Your task to perform on an android device: install app "Firefox Browser" Image 0: 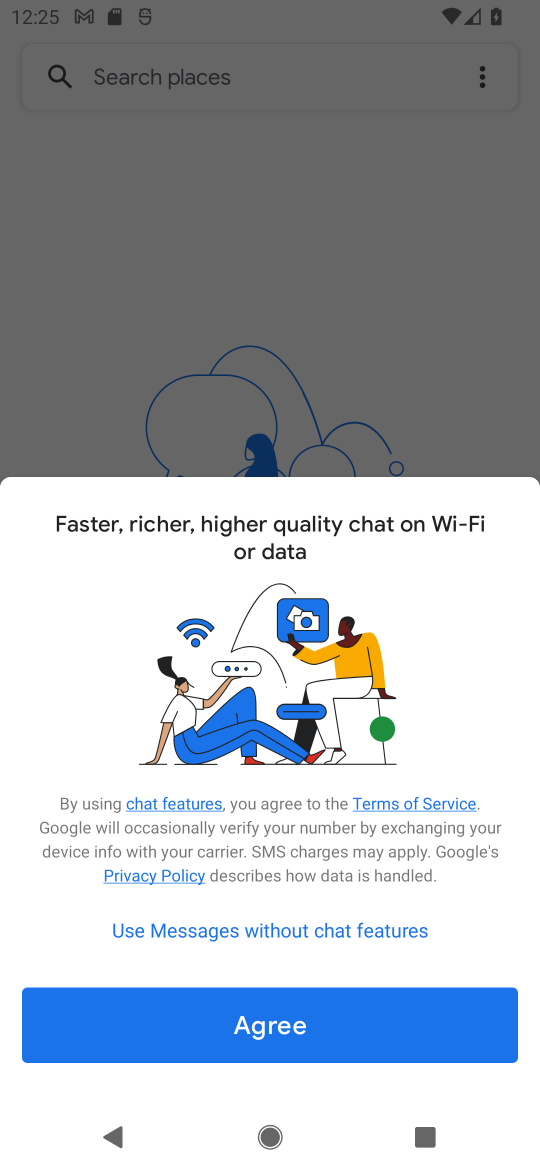
Step 0: press home button
Your task to perform on an android device: install app "Firefox Browser" Image 1: 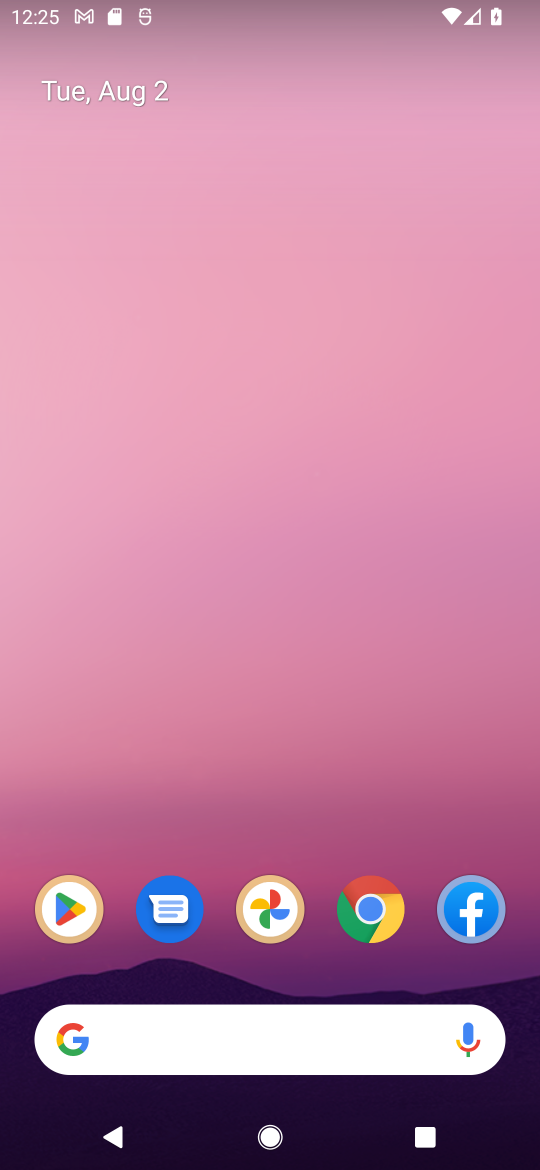
Step 1: click (69, 898)
Your task to perform on an android device: install app "Firefox Browser" Image 2: 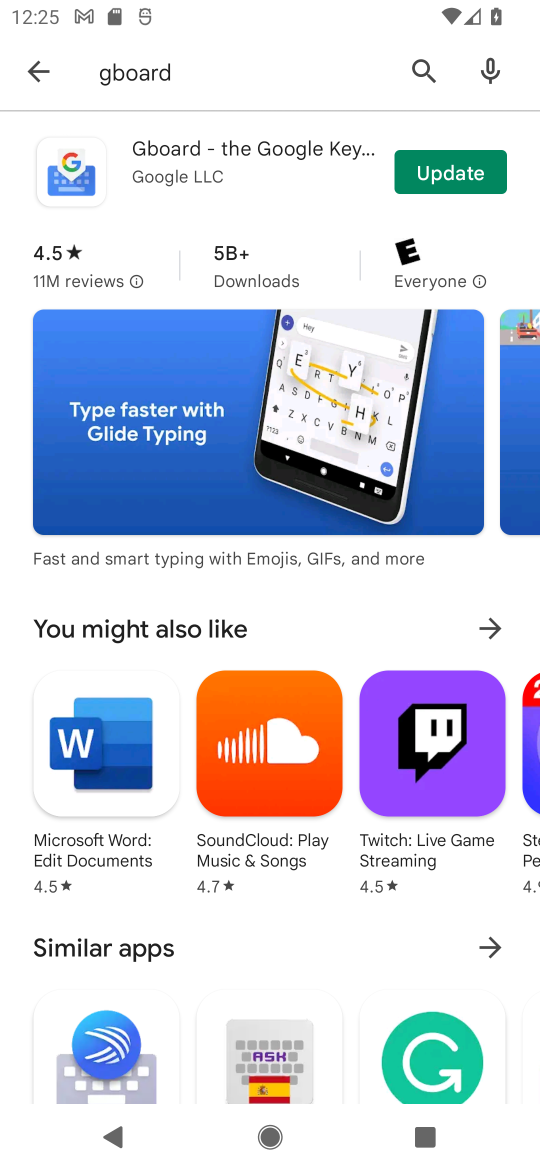
Step 2: click (421, 56)
Your task to perform on an android device: install app "Firefox Browser" Image 3: 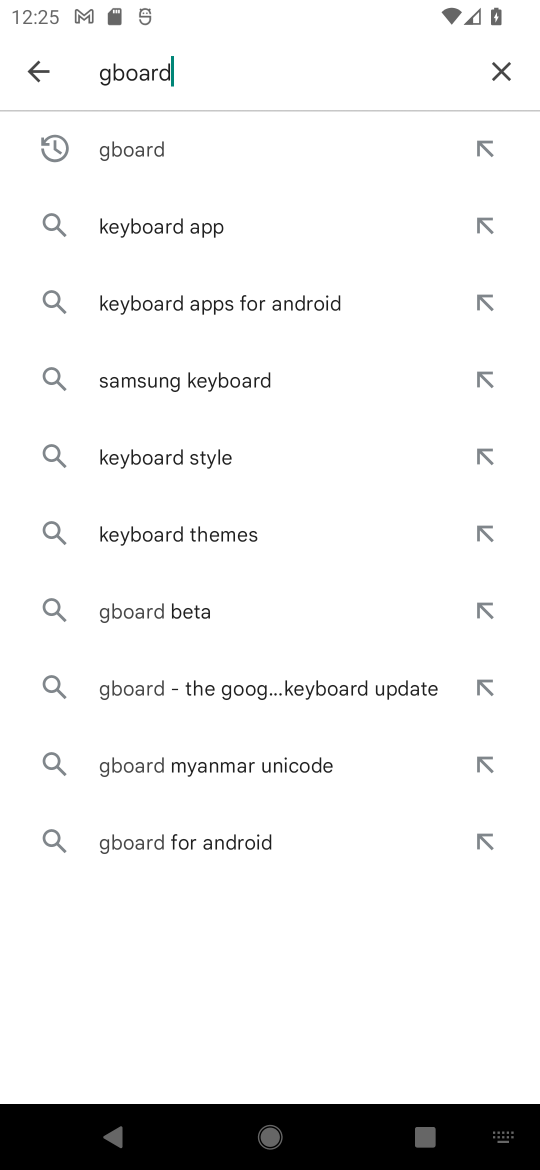
Step 3: click (496, 66)
Your task to perform on an android device: install app "Firefox Browser" Image 4: 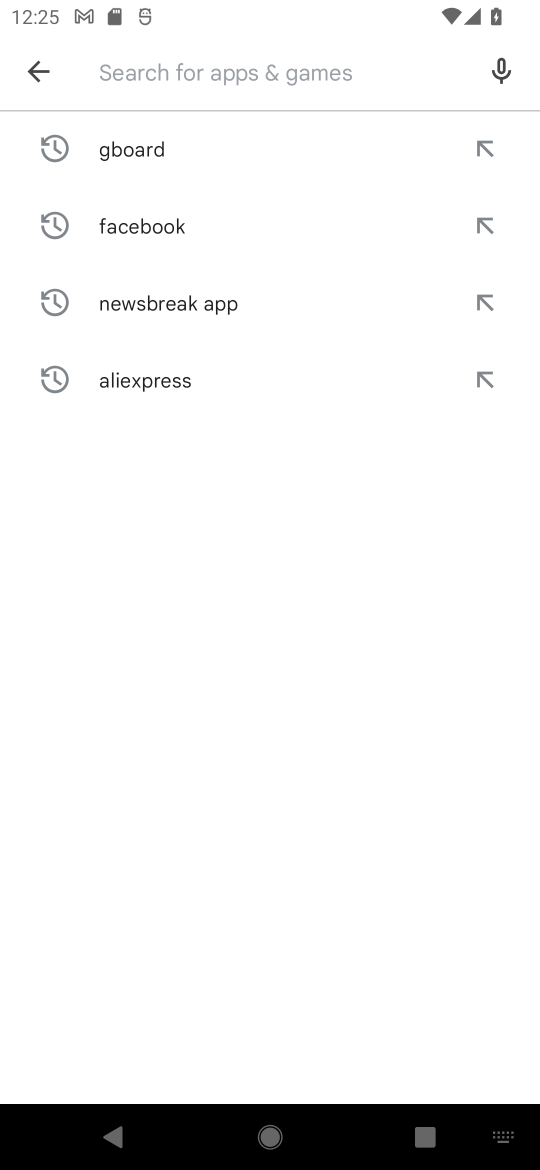
Step 4: type "Firefox Browser""
Your task to perform on an android device: install app "Firefox Browser" Image 5: 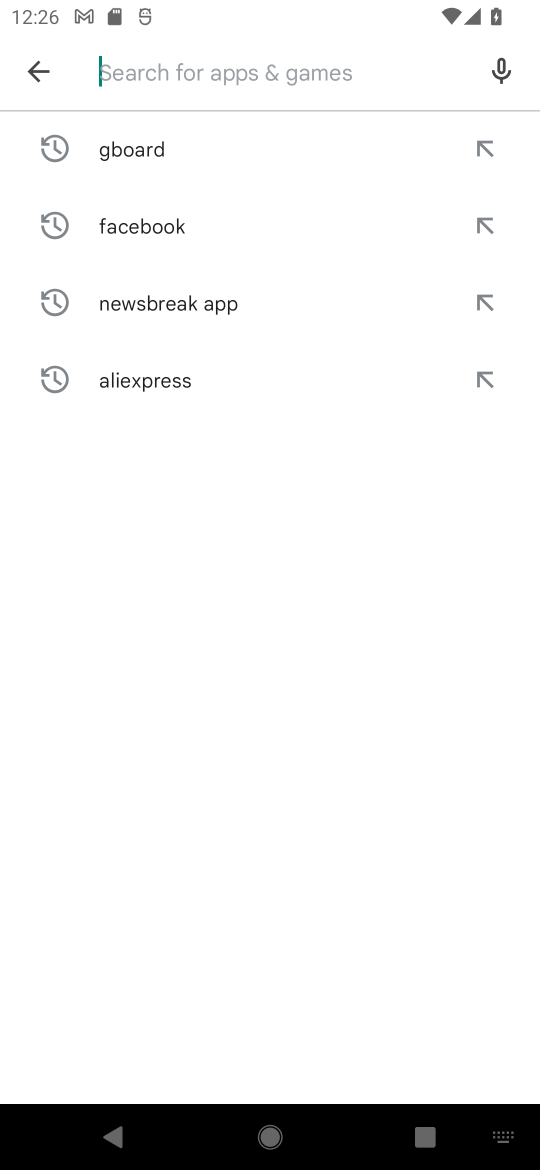
Step 5: type "Firefox Browser"
Your task to perform on an android device: install app "Firefox Browser" Image 6: 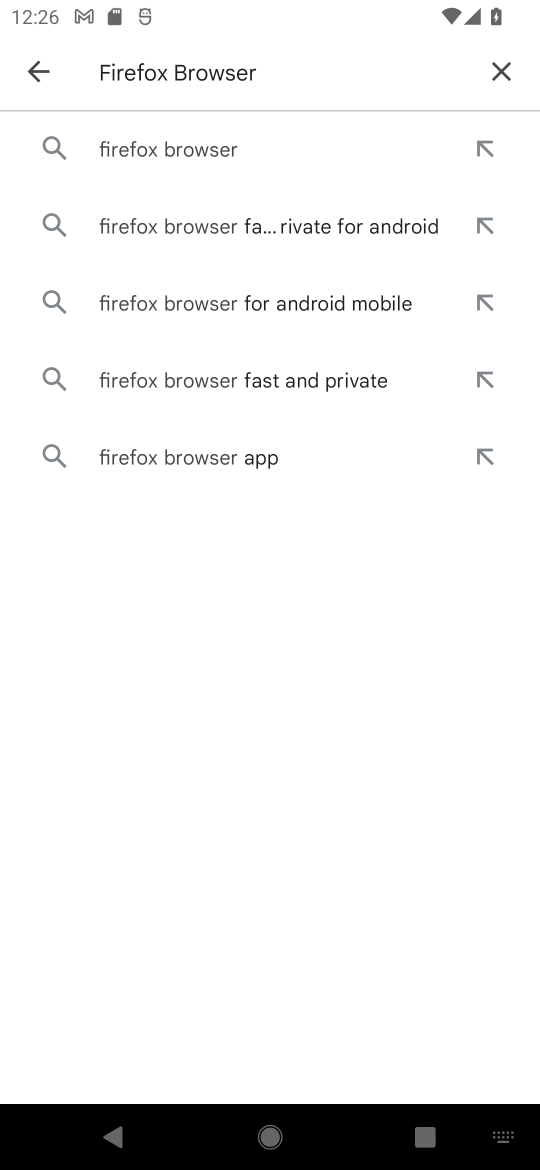
Step 6: click (185, 142)
Your task to perform on an android device: install app "Firefox Browser" Image 7: 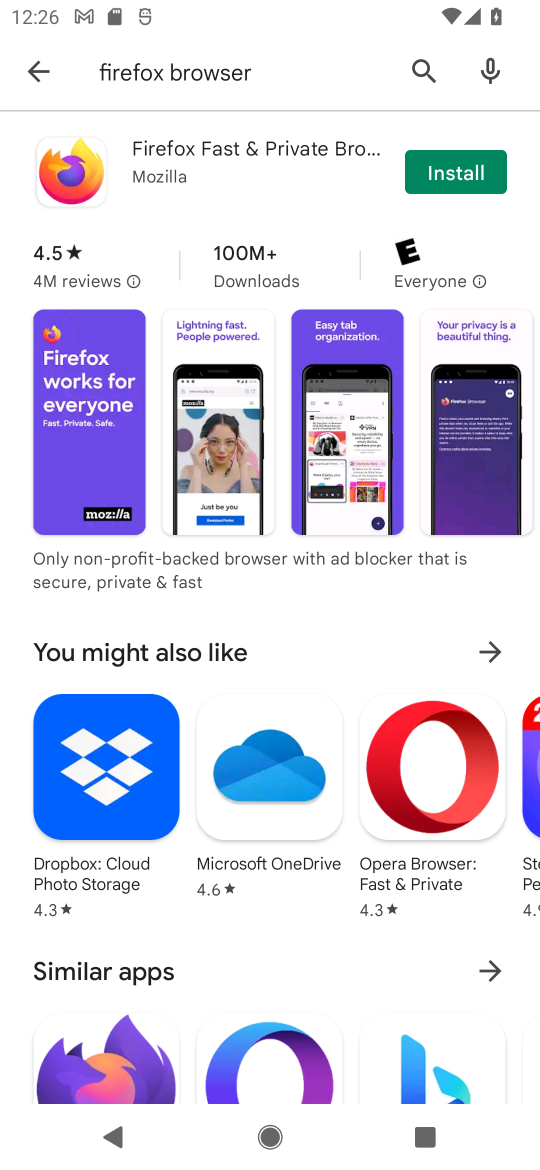
Step 7: click (507, 160)
Your task to perform on an android device: install app "Firefox Browser" Image 8: 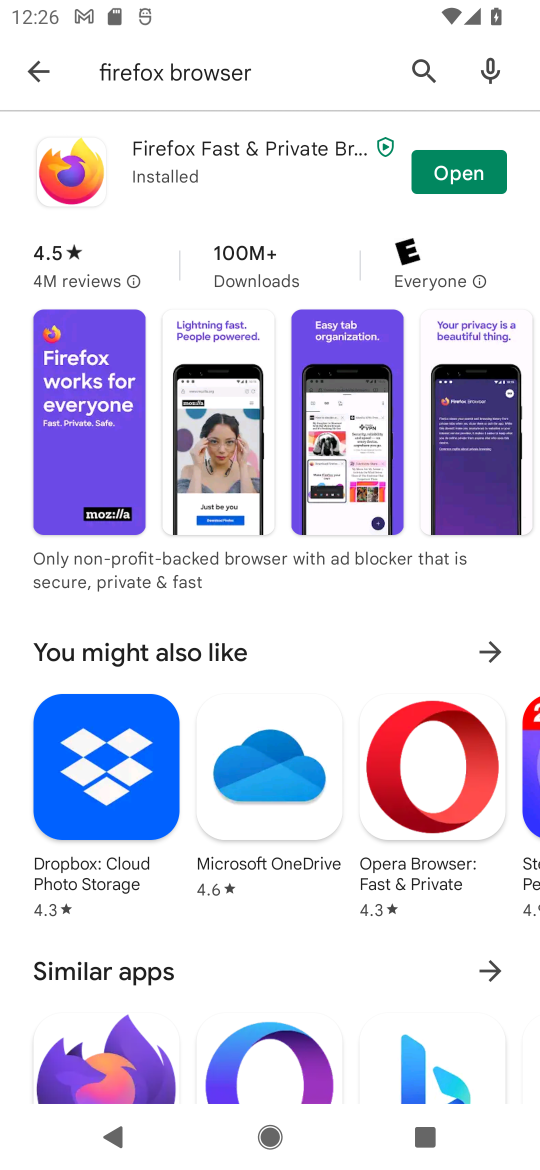
Step 8: task complete